Your task to perform on an android device: Is it going to rain this weekend? Image 0: 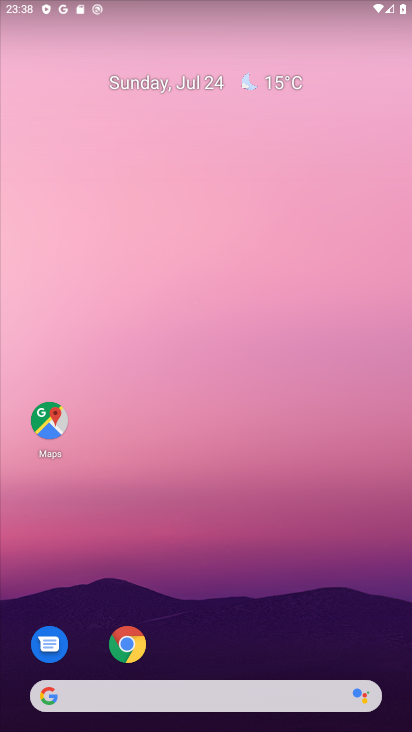
Step 0: drag from (213, 731) to (213, 123)
Your task to perform on an android device: Is it going to rain this weekend? Image 1: 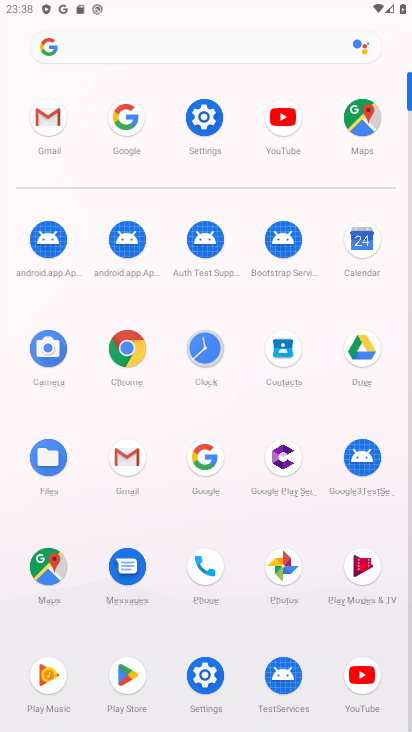
Step 1: click (203, 458)
Your task to perform on an android device: Is it going to rain this weekend? Image 2: 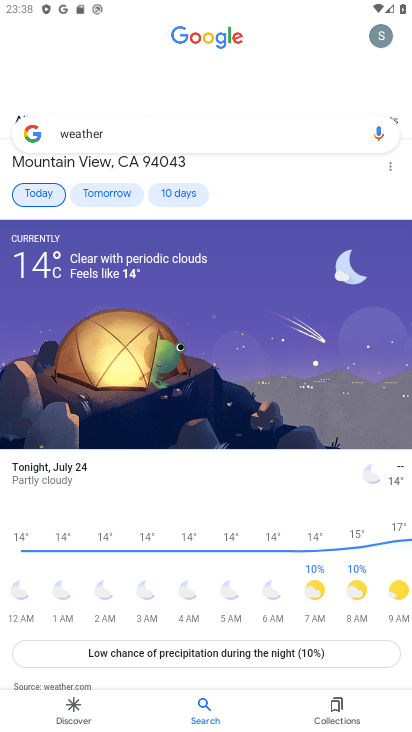
Step 2: click (182, 193)
Your task to perform on an android device: Is it going to rain this weekend? Image 3: 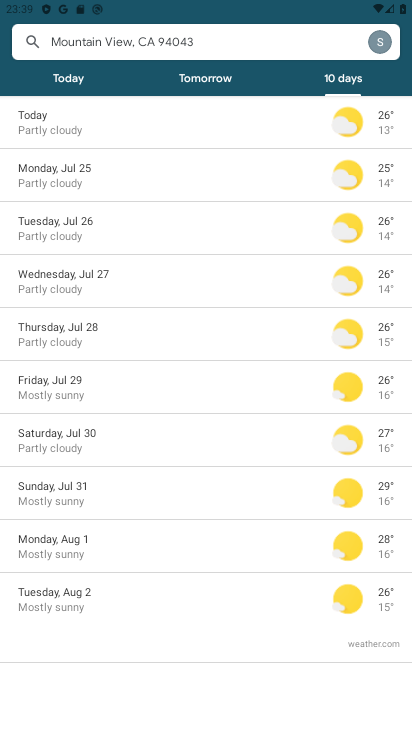
Step 3: click (55, 439)
Your task to perform on an android device: Is it going to rain this weekend? Image 4: 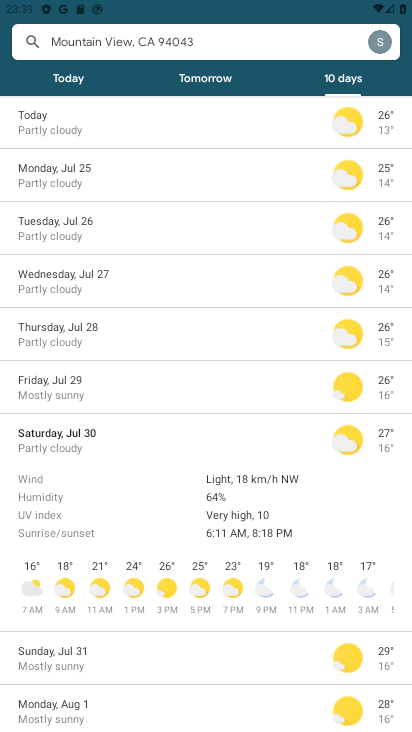
Step 4: task complete